Your task to perform on an android device: search for starred emails in the gmail app Image 0: 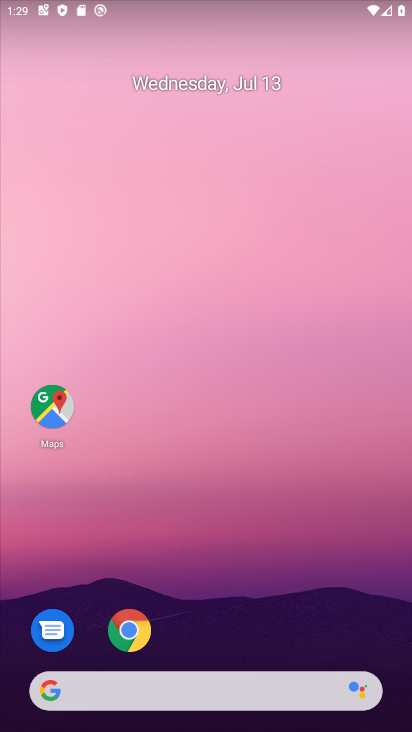
Step 0: drag from (345, 628) to (325, 102)
Your task to perform on an android device: search for starred emails in the gmail app Image 1: 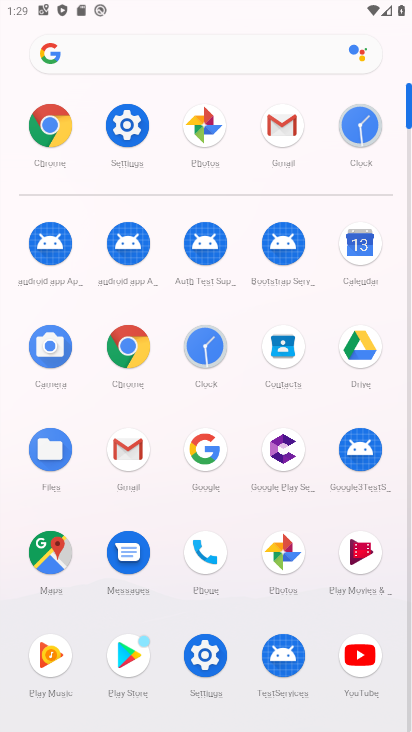
Step 1: click (132, 447)
Your task to perform on an android device: search for starred emails in the gmail app Image 2: 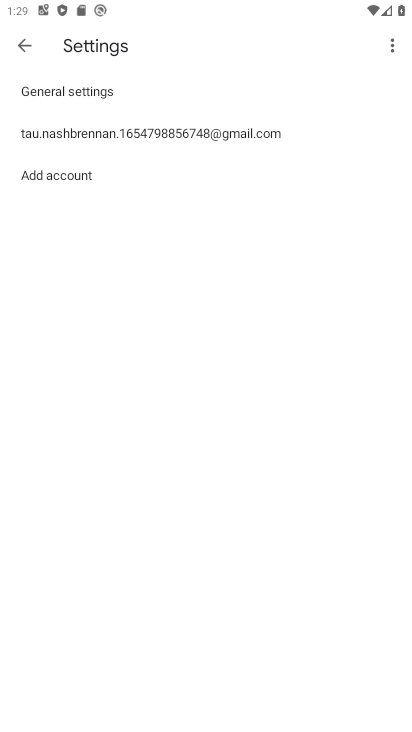
Step 2: press back button
Your task to perform on an android device: search for starred emails in the gmail app Image 3: 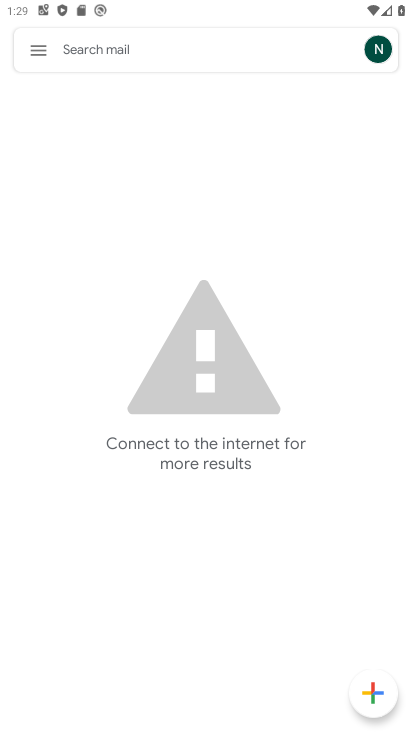
Step 3: click (39, 52)
Your task to perform on an android device: search for starred emails in the gmail app Image 4: 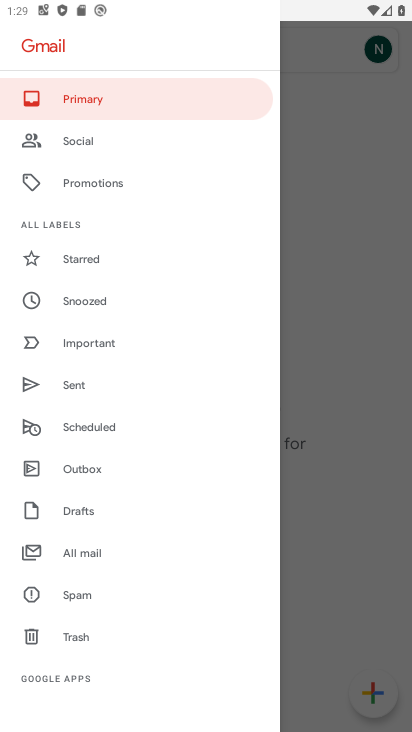
Step 4: click (97, 261)
Your task to perform on an android device: search for starred emails in the gmail app Image 5: 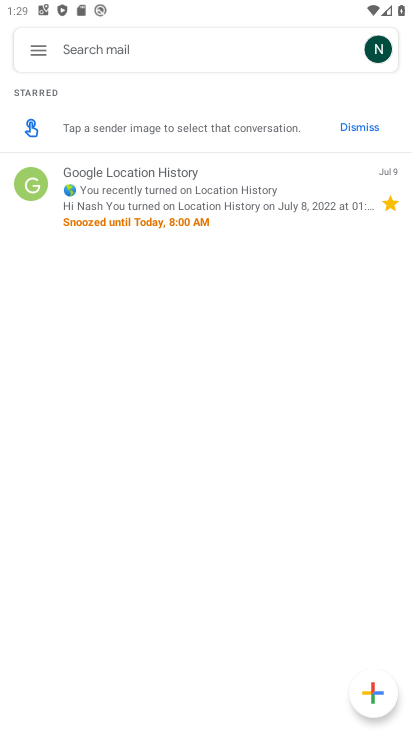
Step 5: task complete